Your task to perform on an android device: Open calendar and show me the third week of next month Image 0: 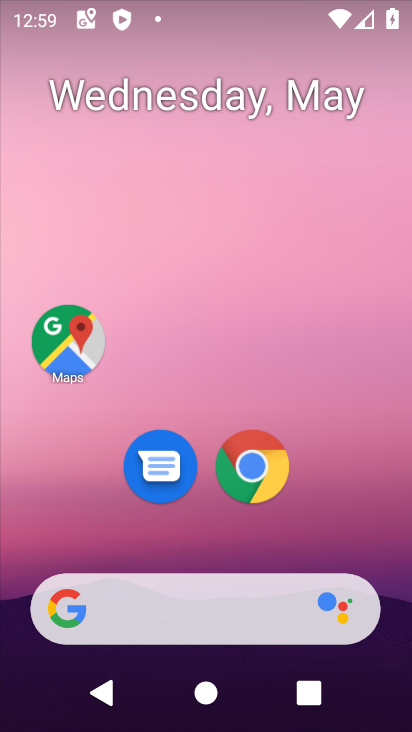
Step 0: drag from (197, 540) to (247, 71)
Your task to perform on an android device: Open calendar and show me the third week of next month Image 1: 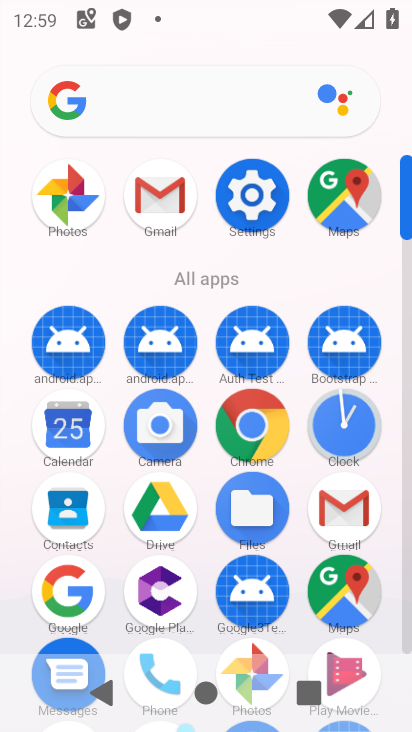
Step 1: click (67, 432)
Your task to perform on an android device: Open calendar and show me the third week of next month Image 2: 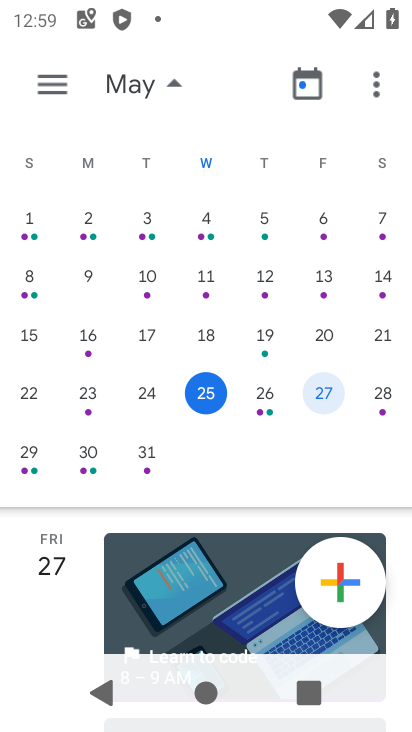
Step 2: drag from (361, 456) to (7, 456)
Your task to perform on an android device: Open calendar and show me the third week of next month Image 3: 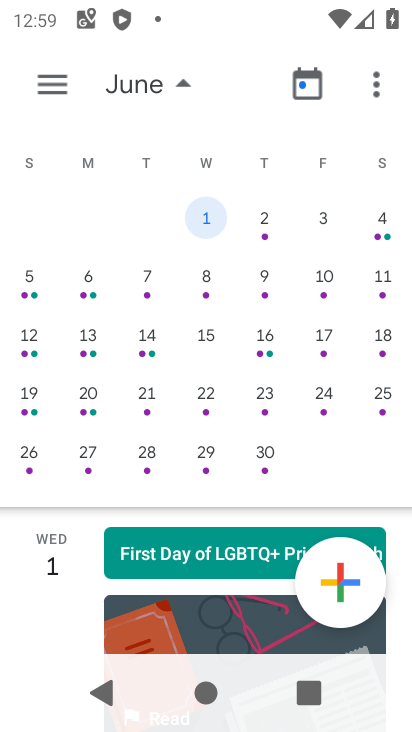
Step 3: click (210, 336)
Your task to perform on an android device: Open calendar and show me the third week of next month Image 4: 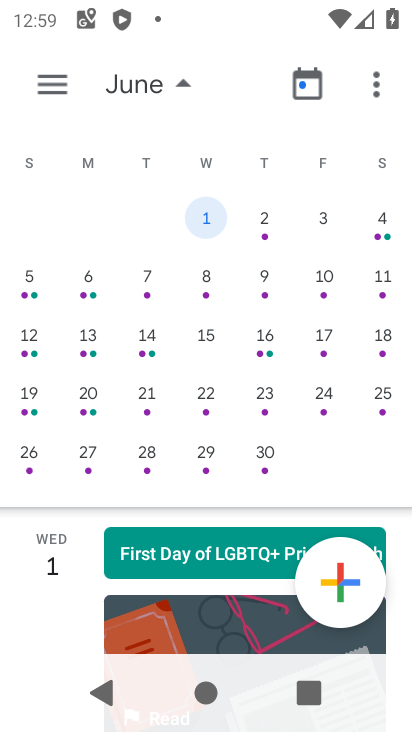
Step 4: click (195, 338)
Your task to perform on an android device: Open calendar and show me the third week of next month Image 5: 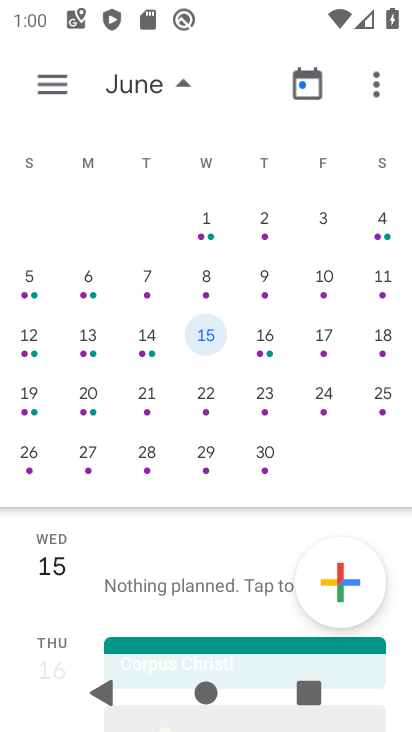
Step 5: task complete